Your task to perform on an android device: Clear the shopping cart on newegg. Add "amazon basics triple a" to the cart on newegg, then select checkout. Image 0: 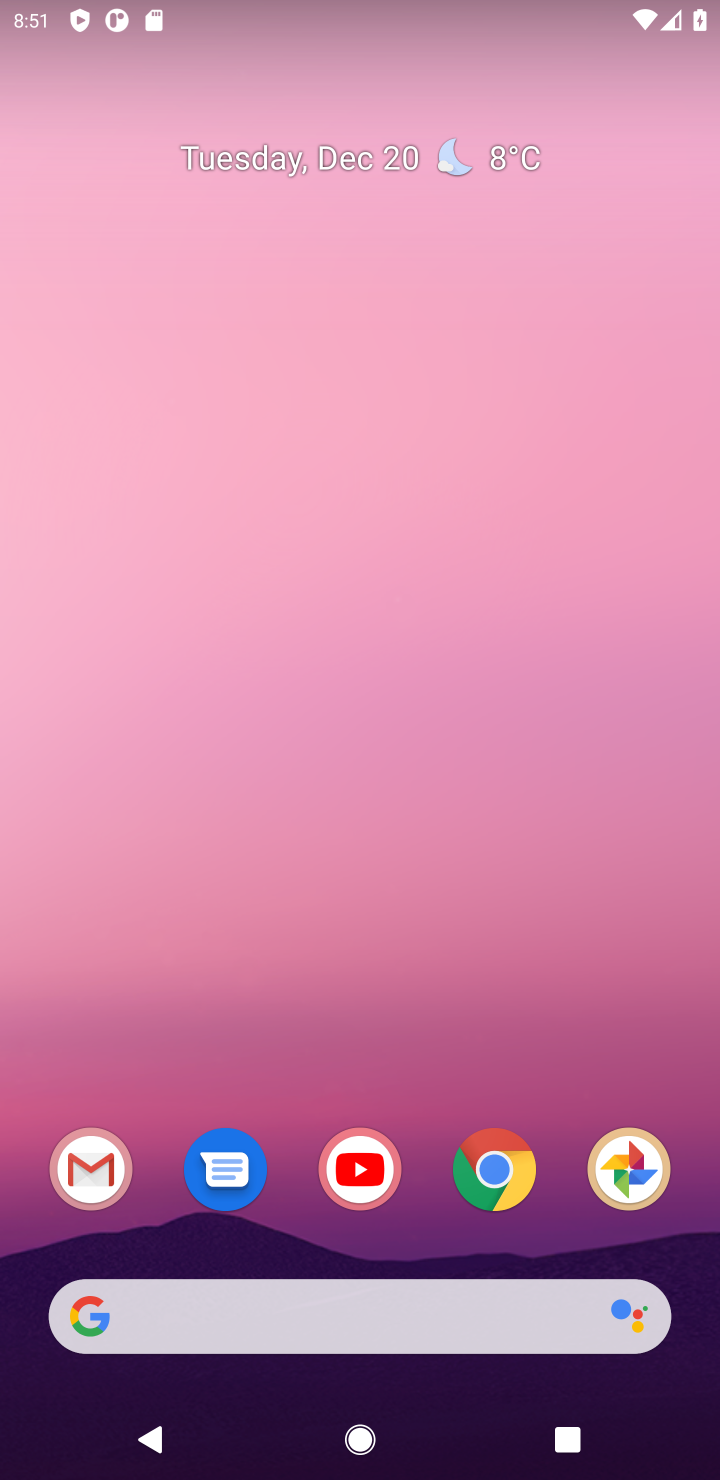
Step 0: click (502, 1210)
Your task to perform on an android device: Clear the shopping cart on newegg. Add "amazon basics triple a" to the cart on newegg, then select checkout. Image 1: 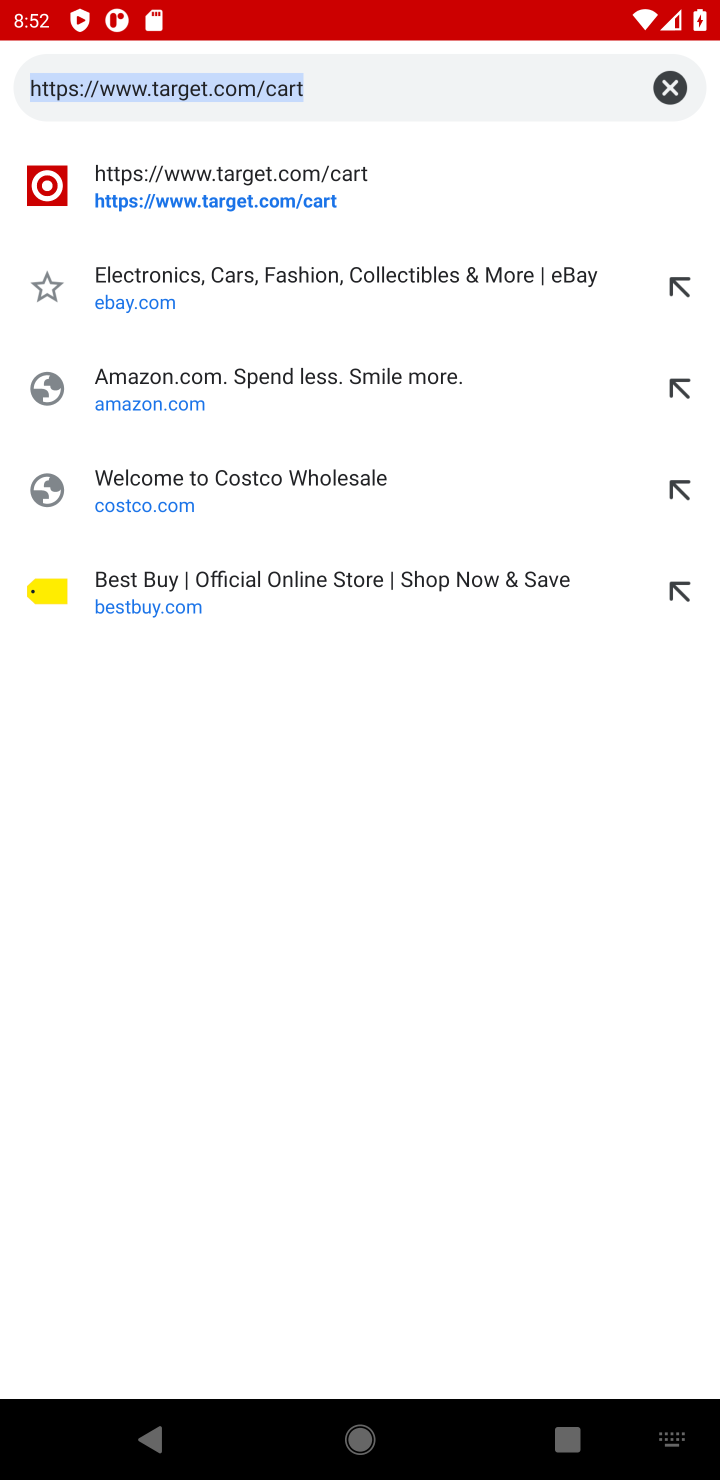
Step 1: type "amazon"
Your task to perform on an android device: Clear the shopping cart on newegg. Add "amazon basics triple a" to the cart on newegg, then select checkout. Image 2: 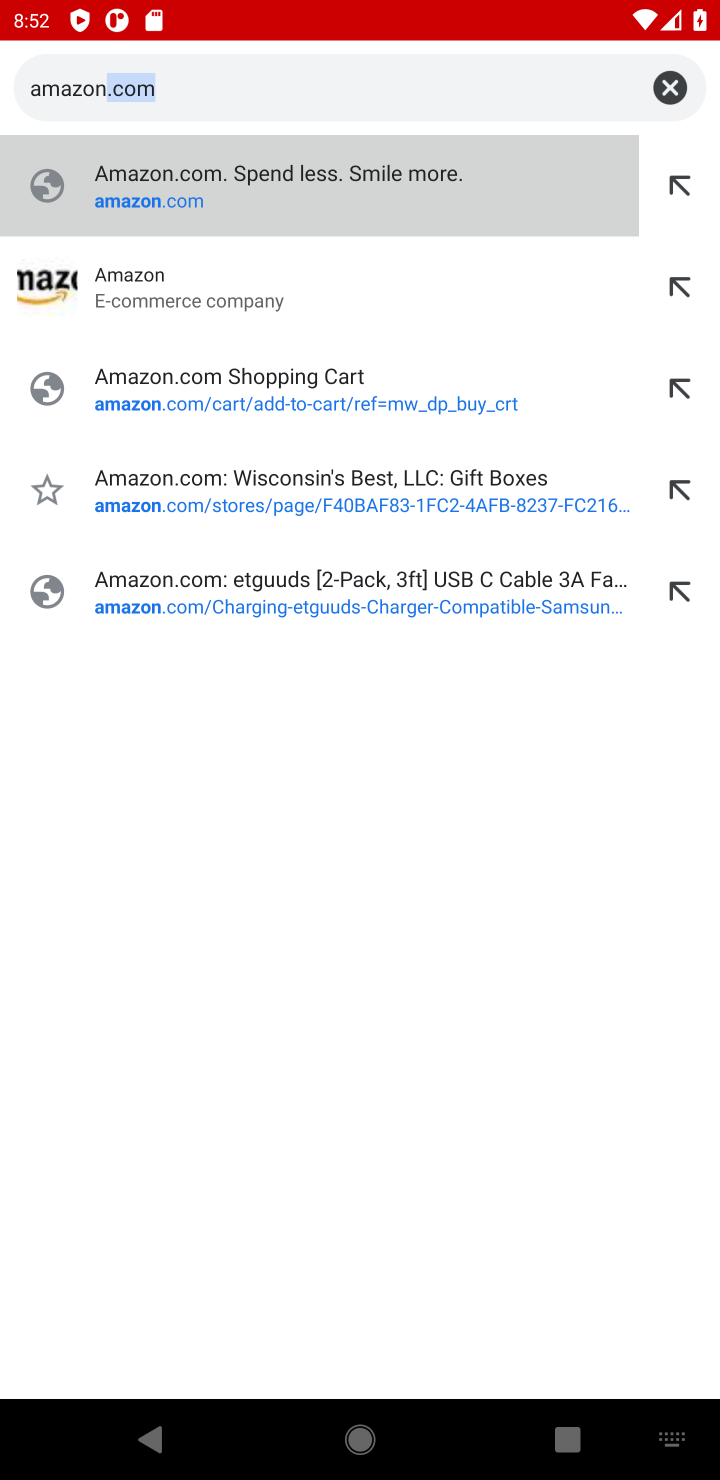
Step 2: click (120, 214)
Your task to perform on an android device: Clear the shopping cart on newegg. Add "amazon basics triple a" to the cart on newegg, then select checkout. Image 3: 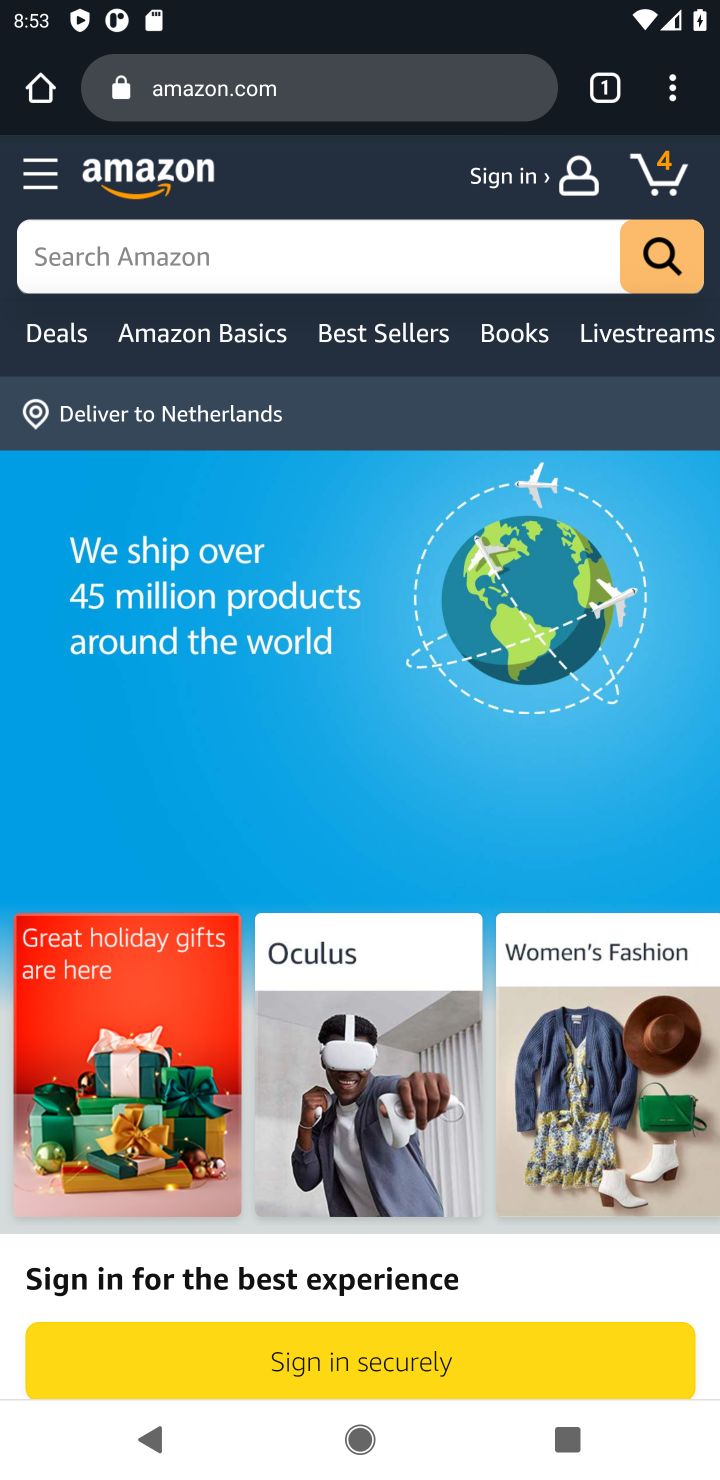
Step 3: click (143, 237)
Your task to perform on an android device: Clear the shopping cart on newegg. Add "amazon basics triple a" to the cart on newegg, then select checkout. Image 4: 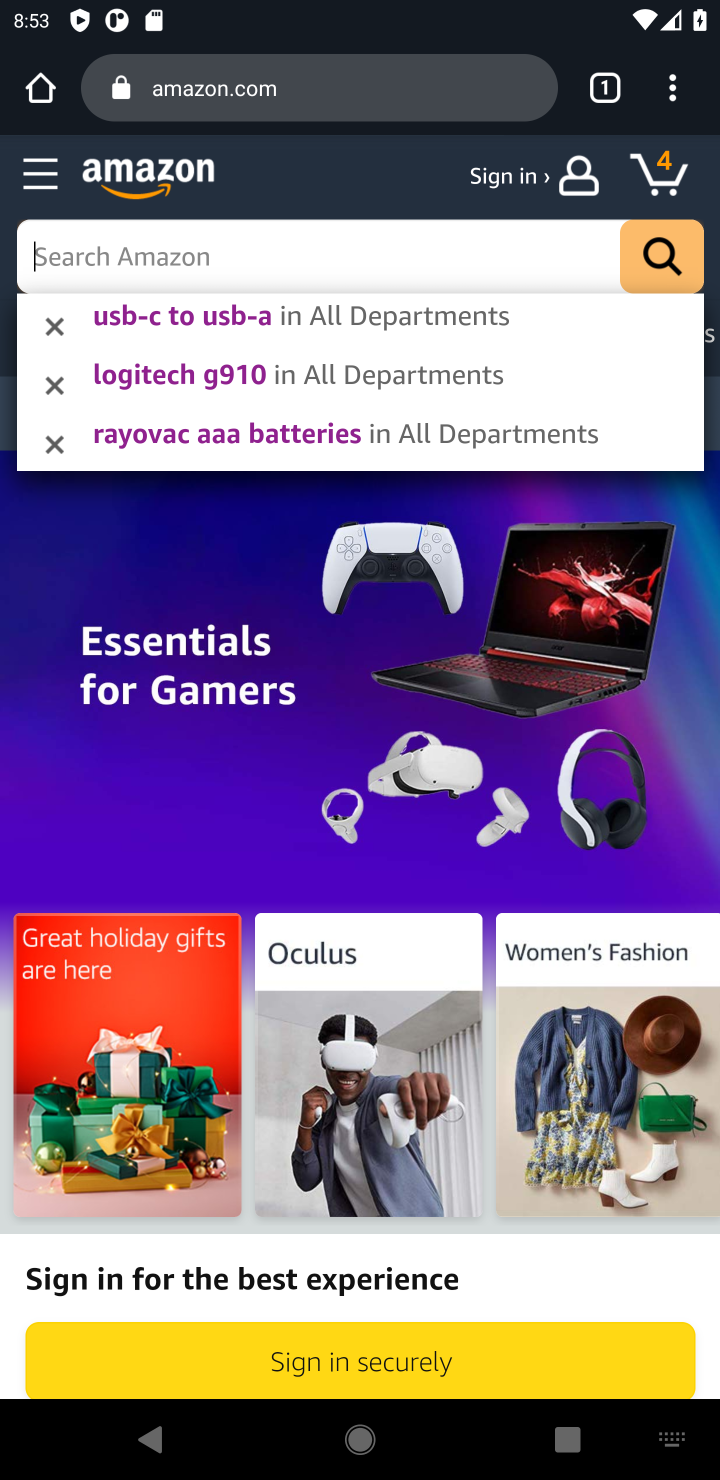
Step 4: type "amazon  triple a"
Your task to perform on an android device: Clear the shopping cart on newegg. Add "amazon basics triple a" to the cart on newegg, then select checkout. Image 5: 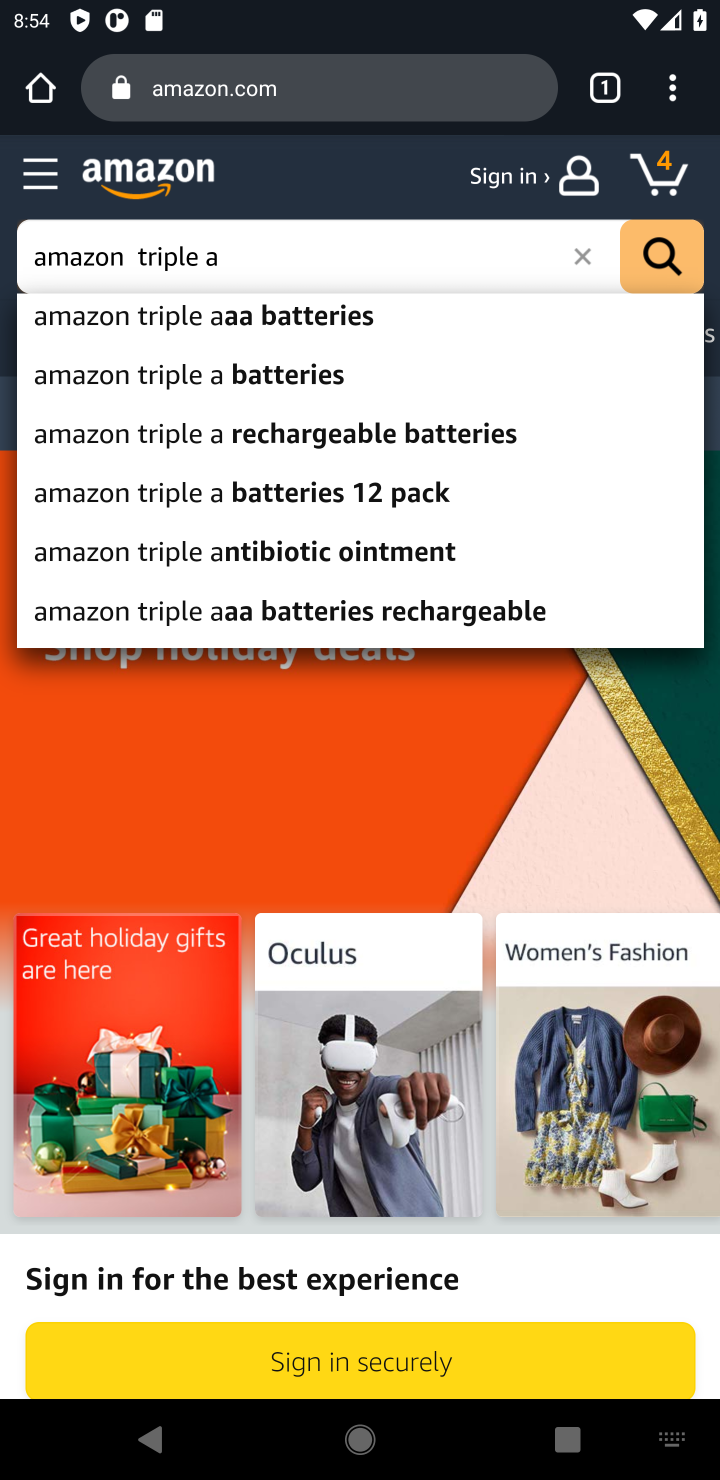
Step 5: click (680, 245)
Your task to perform on an android device: Clear the shopping cart on newegg. Add "amazon basics triple a" to the cart on newegg, then select checkout. Image 6: 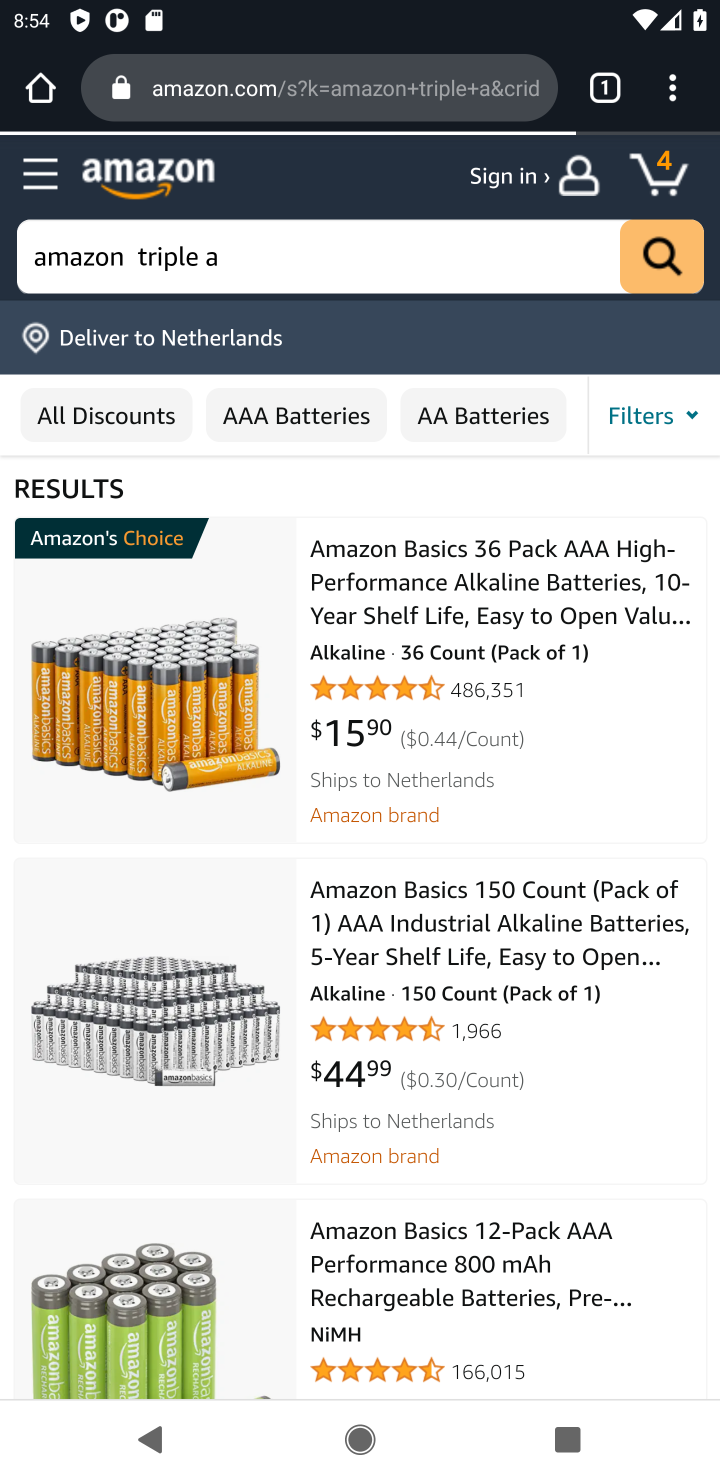
Step 6: task complete